Your task to perform on an android device: Empty the shopping cart on bestbuy. Add apple airpods pro to the cart on bestbuy, then select checkout. Image 0: 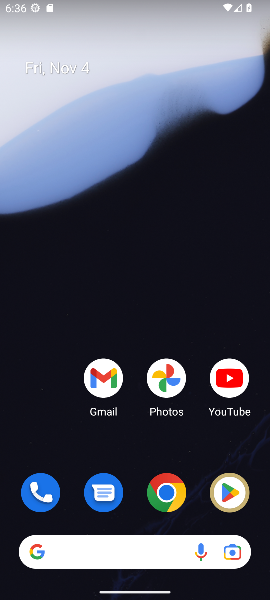
Step 0: drag from (142, 458) to (146, 80)
Your task to perform on an android device: Empty the shopping cart on bestbuy. Add apple airpods pro to the cart on bestbuy, then select checkout. Image 1: 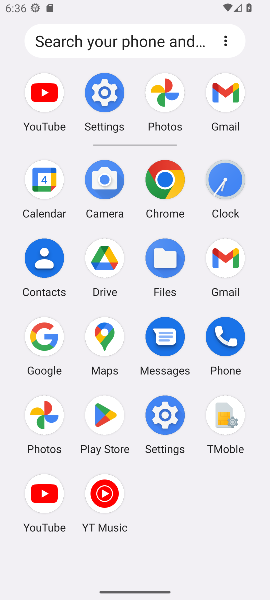
Step 1: click (165, 174)
Your task to perform on an android device: Empty the shopping cart on bestbuy. Add apple airpods pro to the cart on bestbuy, then select checkout. Image 2: 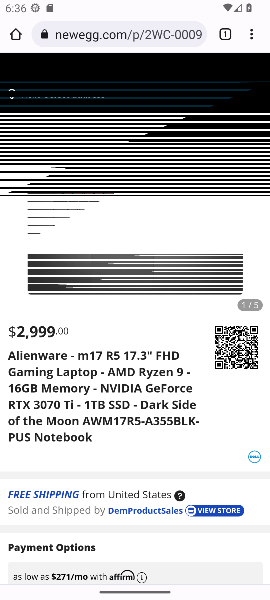
Step 2: click (151, 40)
Your task to perform on an android device: Empty the shopping cart on bestbuy. Add apple airpods pro to the cart on bestbuy, then select checkout. Image 3: 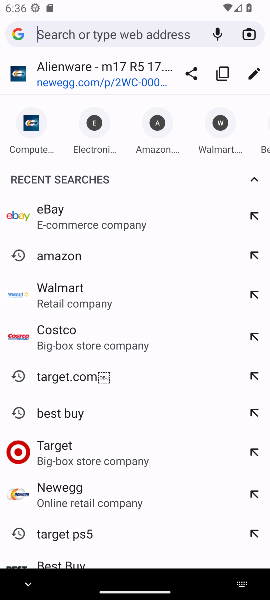
Step 3: type "bestbuy.com"
Your task to perform on an android device: Empty the shopping cart on bestbuy. Add apple airpods pro to the cart on bestbuy, then select checkout. Image 4: 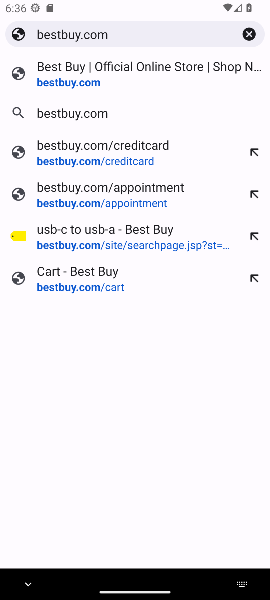
Step 4: press enter
Your task to perform on an android device: Empty the shopping cart on bestbuy. Add apple airpods pro to the cart on bestbuy, then select checkout. Image 5: 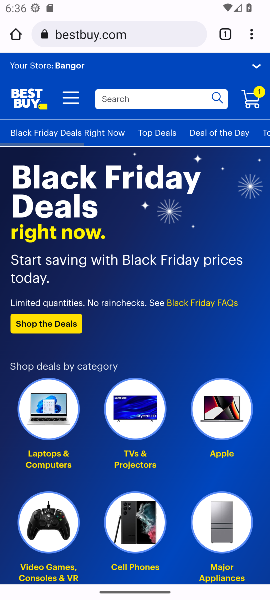
Step 5: click (257, 102)
Your task to perform on an android device: Empty the shopping cart on bestbuy. Add apple airpods pro to the cart on bestbuy, then select checkout. Image 6: 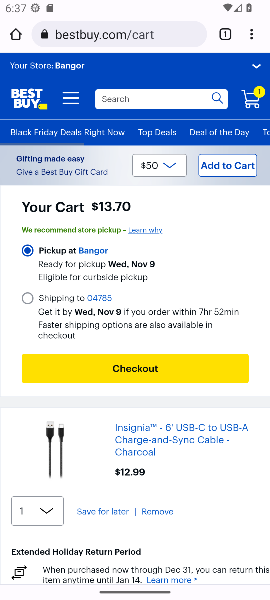
Step 6: click (154, 511)
Your task to perform on an android device: Empty the shopping cart on bestbuy. Add apple airpods pro to the cart on bestbuy, then select checkout. Image 7: 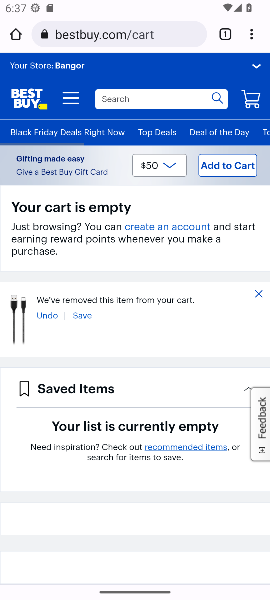
Step 7: click (162, 102)
Your task to perform on an android device: Empty the shopping cart on bestbuy. Add apple airpods pro to the cart on bestbuy, then select checkout. Image 8: 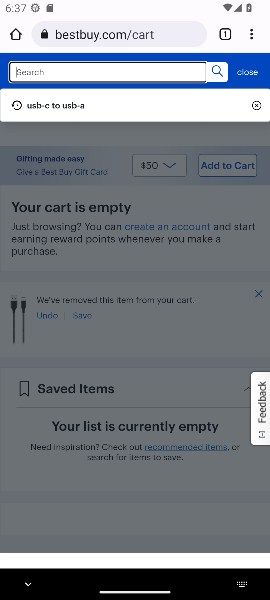
Step 8: type "apple airpods pro"
Your task to perform on an android device: Empty the shopping cart on bestbuy. Add apple airpods pro to the cart on bestbuy, then select checkout. Image 9: 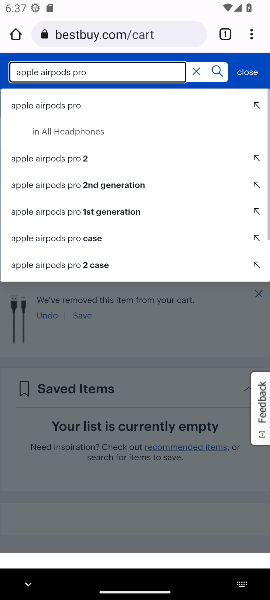
Step 9: press enter
Your task to perform on an android device: Empty the shopping cart on bestbuy. Add apple airpods pro to the cart on bestbuy, then select checkout. Image 10: 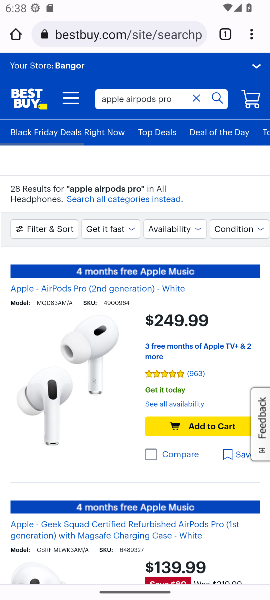
Step 10: click (194, 421)
Your task to perform on an android device: Empty the shopping cart on bestbuy. Add apple airpods pro to the cart on bestbuy, then select checkout. Image 11: 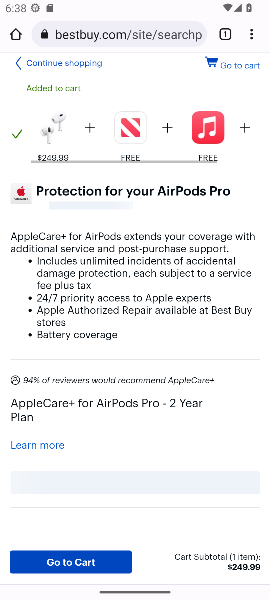
Step 11: click (107, 566)
Your task to perform on an android device: Empty the shopping cart on bestbuy. Add apple airpods pro to the cart on bestbuy, then select checkout. Image 12: 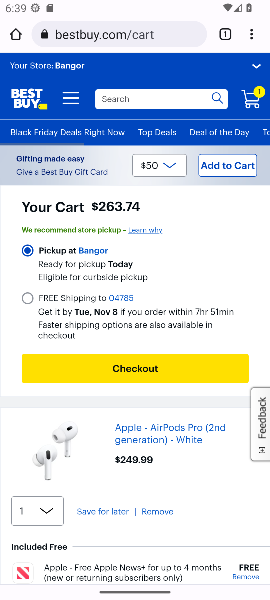
Step 12: click (169, 368)
Your task to perform on an android device: Empty the shopping cart on bestbuy. Add apple airpods pro to the cart on bestbuy, then select checkout. Image 13: 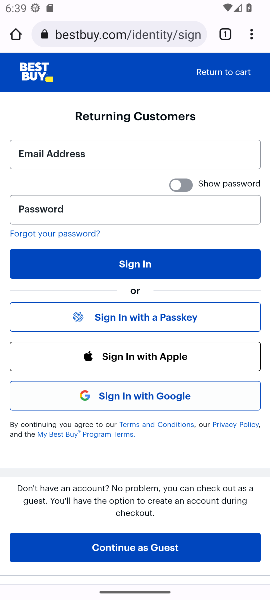
Step 13: task complete